Your task to perform on an android device: check battery use Image 0: 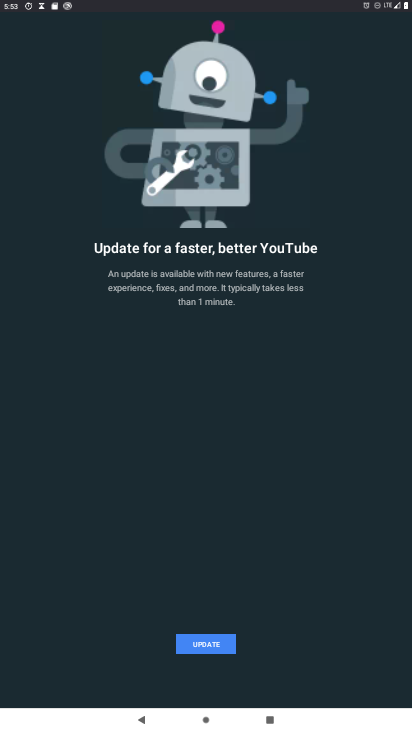
Step 0: press home button
Your task to perform on an android device: check battery use Image 1: 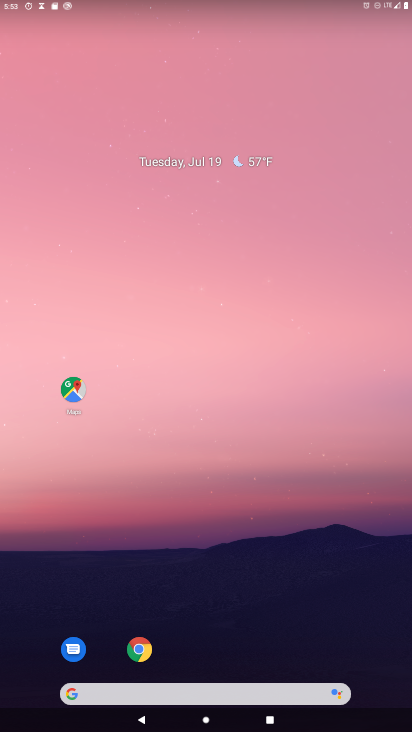
Step 1: drag from (186, 616) to (136, 3)
Your task to perform on an android device: check battery use Image 2: 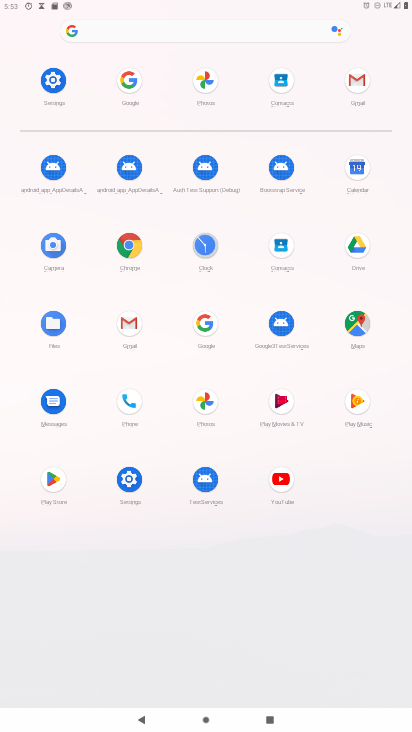
Step 2: click (51, 73)
Your task to perform on an android device: check battery use Image 3: 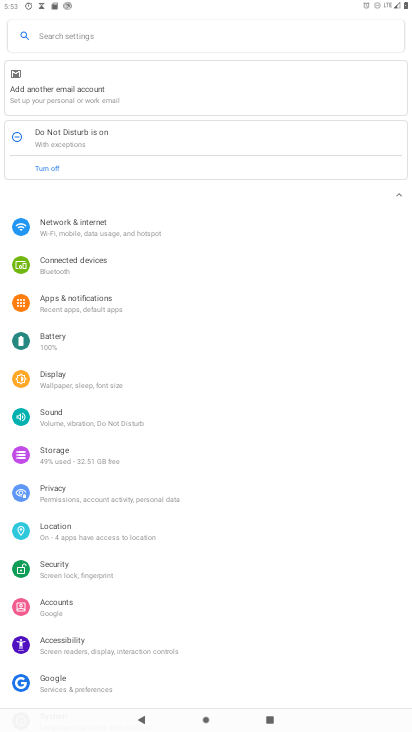
Step 3: click (47, 339)
Your task to perform on an android device: check battery use Image 4: 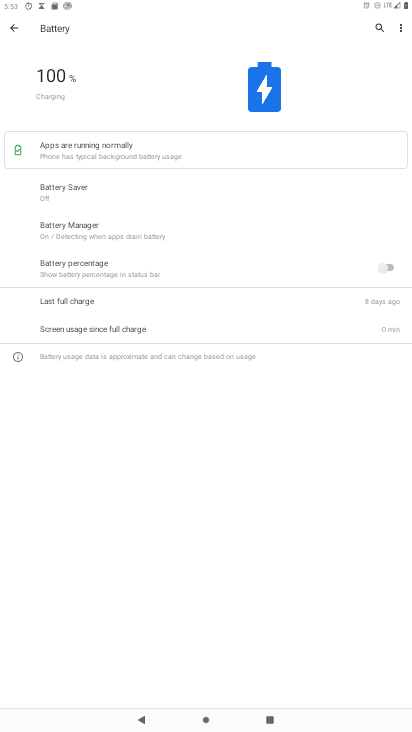
Step 4: task complete